Your task to perform on an android device: clear history in the chrome app Image 0: 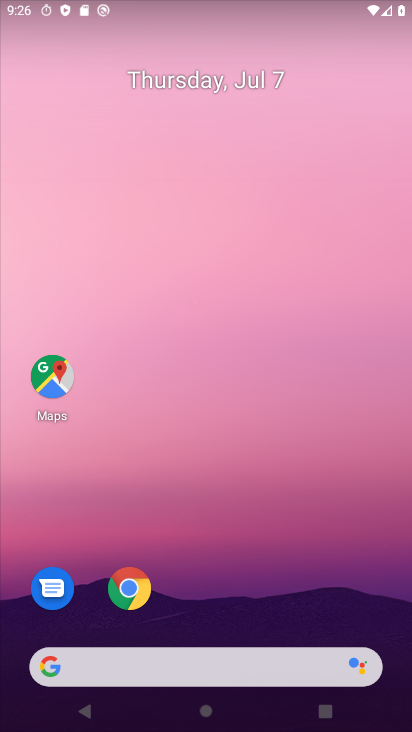
Step 0: drag from (338, 705) to (116, 6)
Your task to perform on an android device: clear history in the chrome app Image 1: 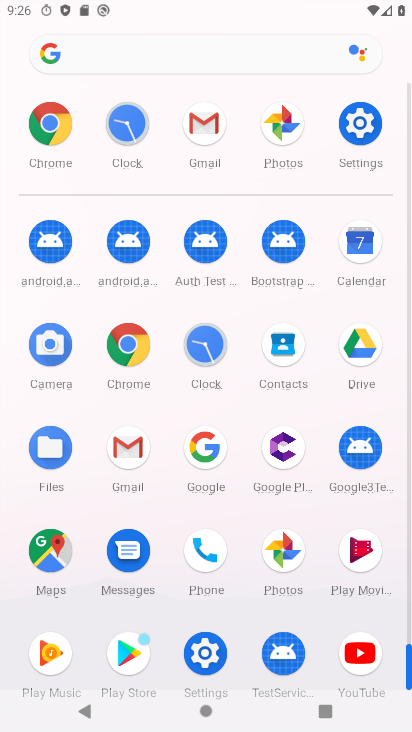
Step 1: click (52, 126)
Your task to perform on an android device: clear history in the chrome app Image 2: 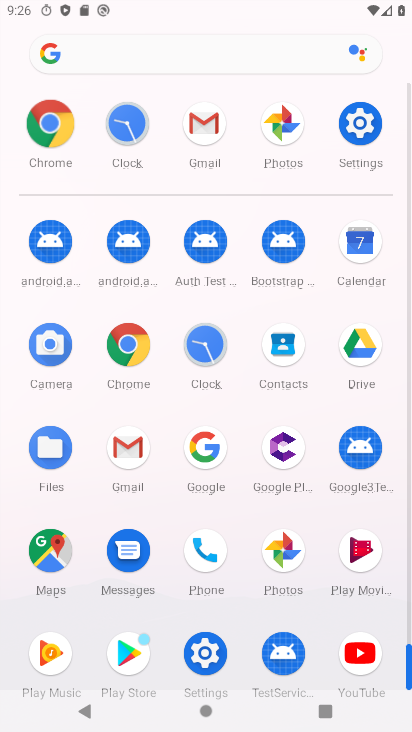
Step 2: click (53, 124)
Your task to perform on an android device: clear history in the chrome app Image 3: 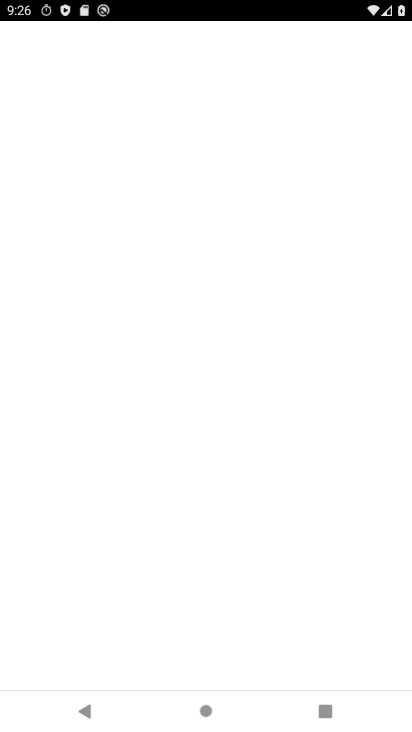
Step 3: click (53, 124)
Your task to perform on an android device: clear history in the chrome app Image 4: 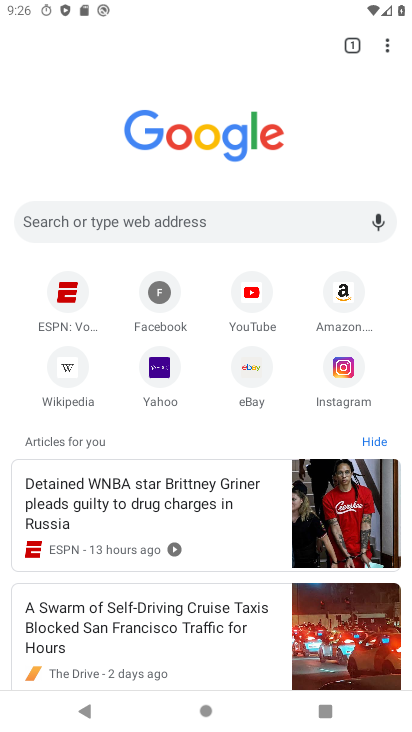
Step 4: drag from (385, 41) to (220, 272)
Your task to perform on an android device: clear history in the chrome app Image 5: 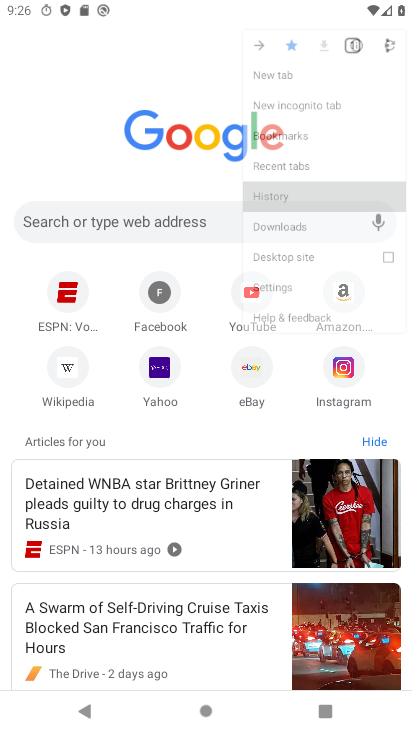
Step 5: click (224, 267)
Your task to perform on an android device: clear history in the chrome app Image 6: 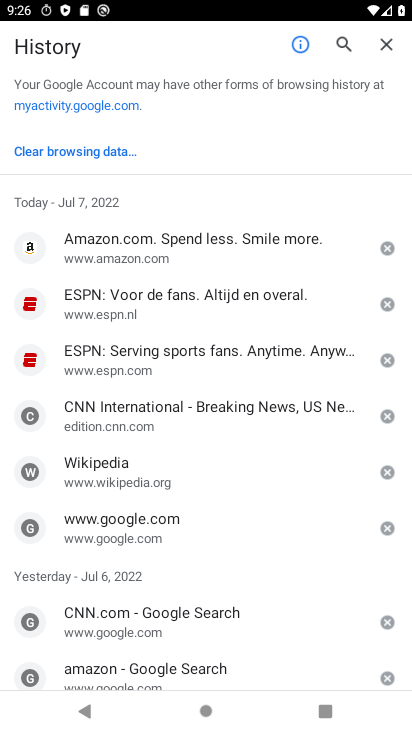
Step 6: click (382, 242)
Your task to perform on an android device: clear history in the chrome app Image 7: 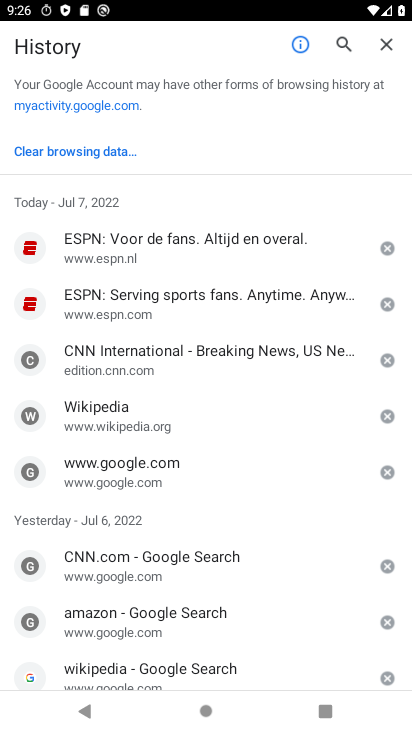
Step 7: click (62, 155)
Your task to perform on an android device: clear history in the chrome app Image 8: 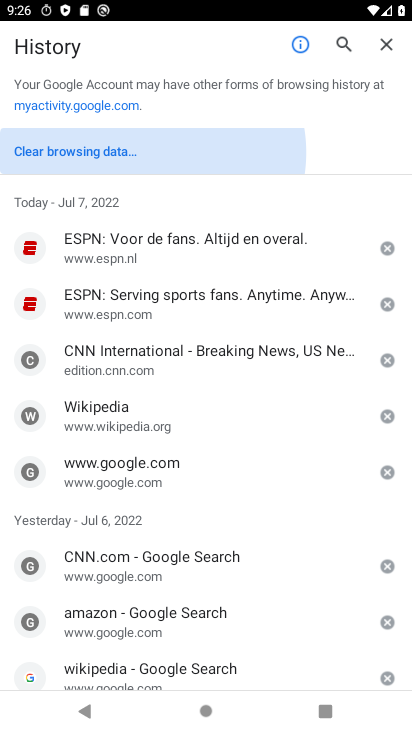
Step 8: click (65, 152)
Your task to perform on an android device: clear history in the chrome app Image 9: 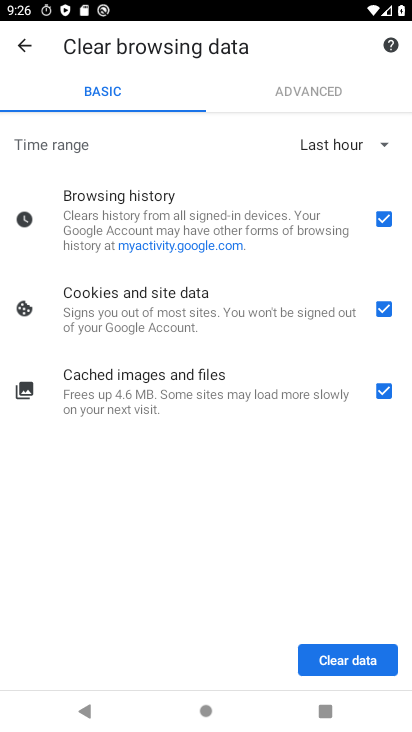
Step 9: click (366, 654)
Your task to perform on an android device: clear history in the chrome app Image 10: 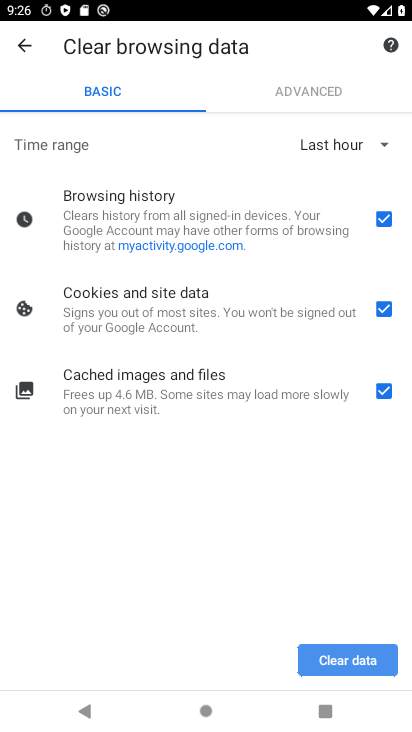
Step 10: click (366, 654)
Your task to perform on an android device: clear history in the chrome app Image 11: 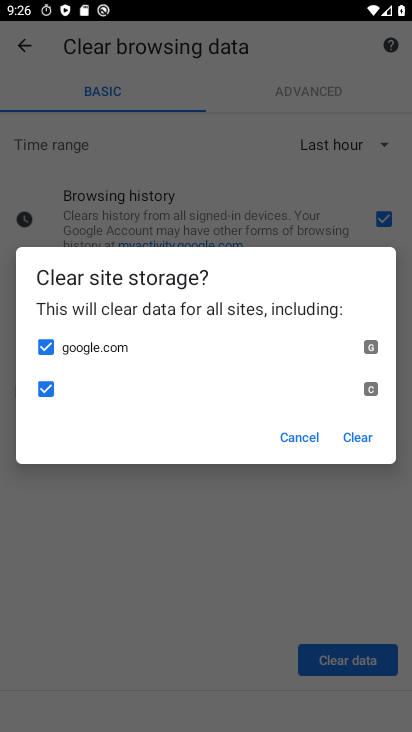
Step 11: click (370, 645)
Your task to perform on an android device: clear history in the chrome app Image 12: 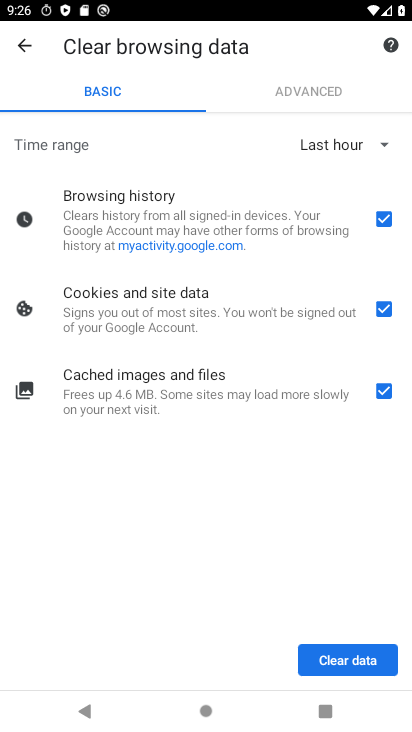
Step 12: click (352, 663)
Your task to perform on an android device: clear history in the chrome app Image 13: 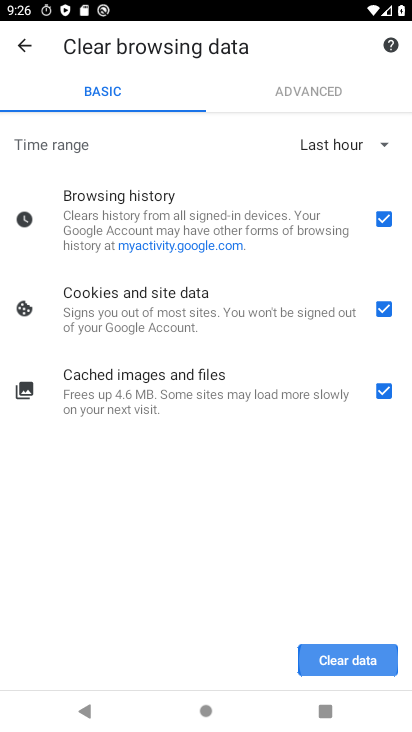
Step 13: click (352, 663)
Your task to perform on an android device: clear history in the chrome app Image 14: 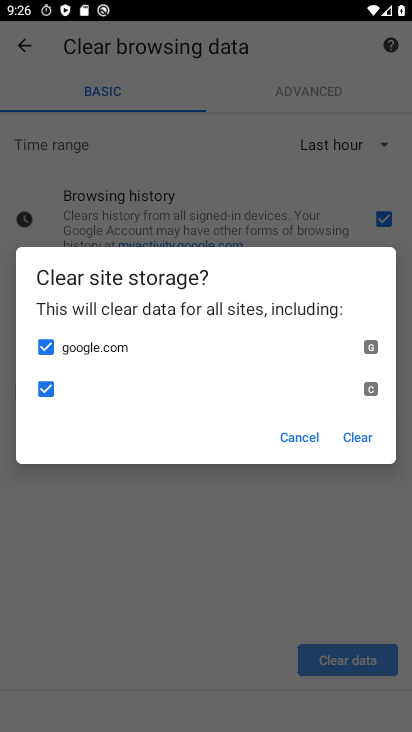
Step 14: click (352, 663)
Your task to perform on an android device: clear history in the chrome app Image 15: 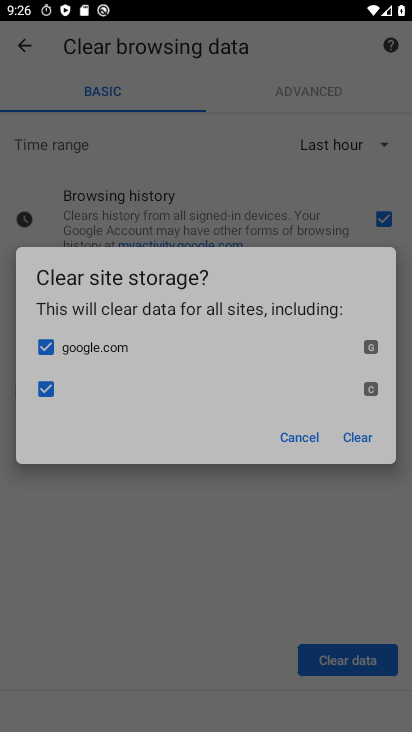
Step 15: click (352, 663)
Your task to perform on an android device: clear history in the chrome app Image 16: 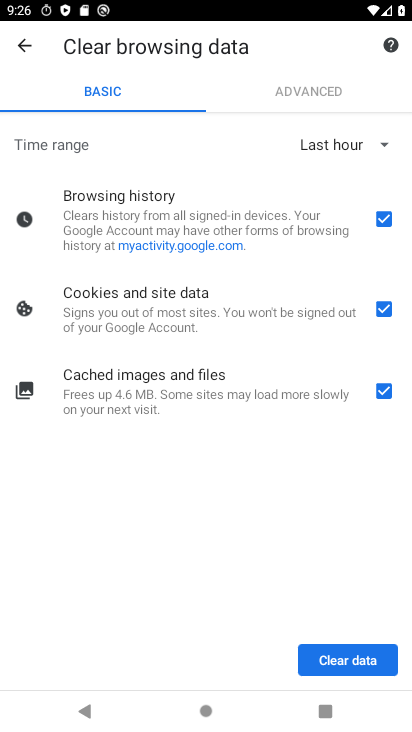
Step 16: click (354, 645)
Your task to perform on an android device: clear history in the chrome app Image 17: 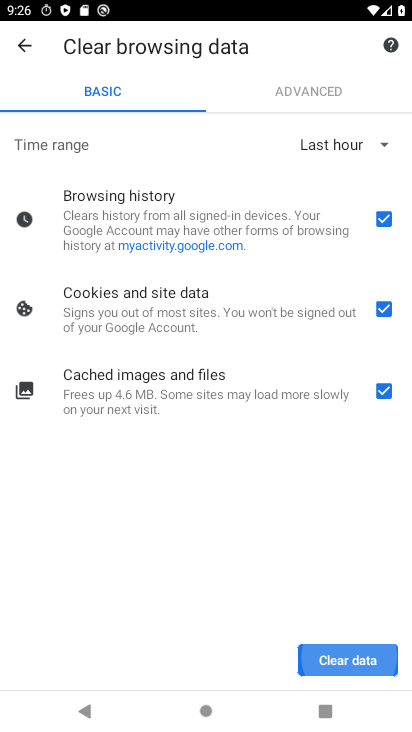
Step 17: click (354, 645)
Your task to perform on an android device: clear history in the chrome app Image 18: 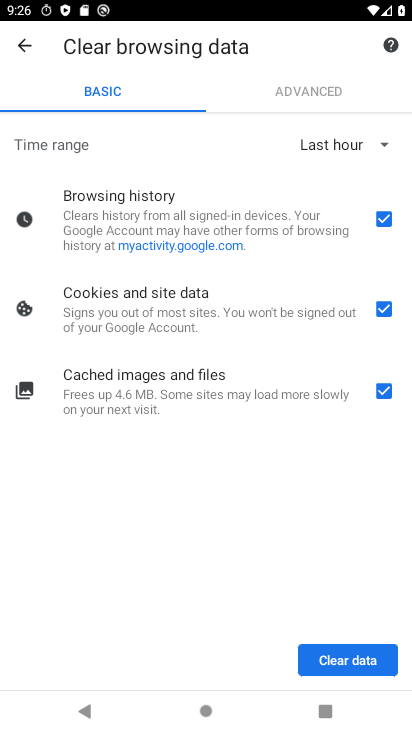
Step 18: click (353, 660)
Your task to perform on an android device: clear history in the chrome app Image 19: 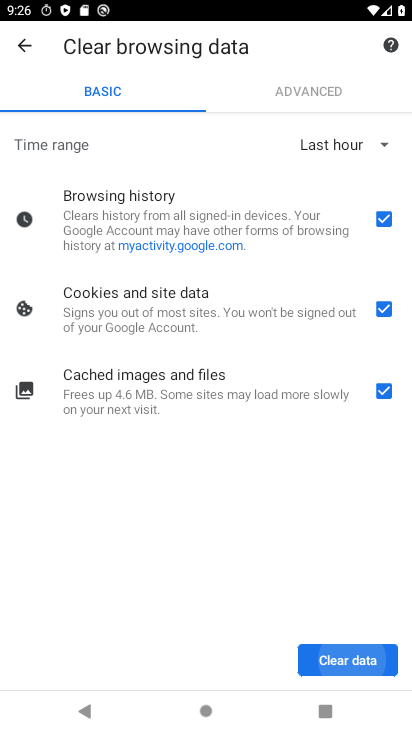
Step 19: click (353, 660)
Your task to perform on an android device: clear history in the chrome app Image 20: 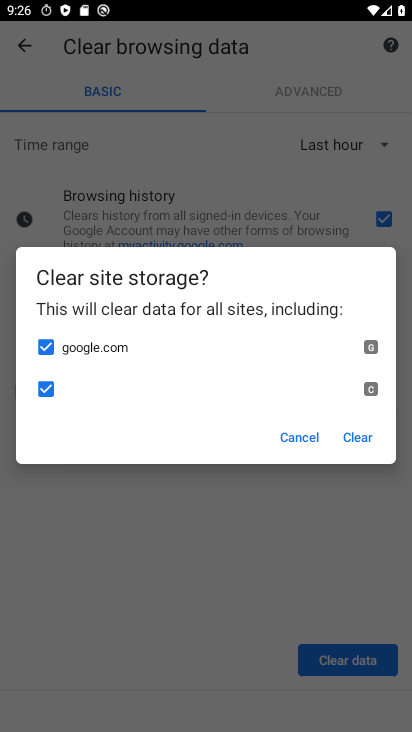
Step 20: click (372, 440)
Your task to perform on an android device: clear history in the chrome app Image 21: 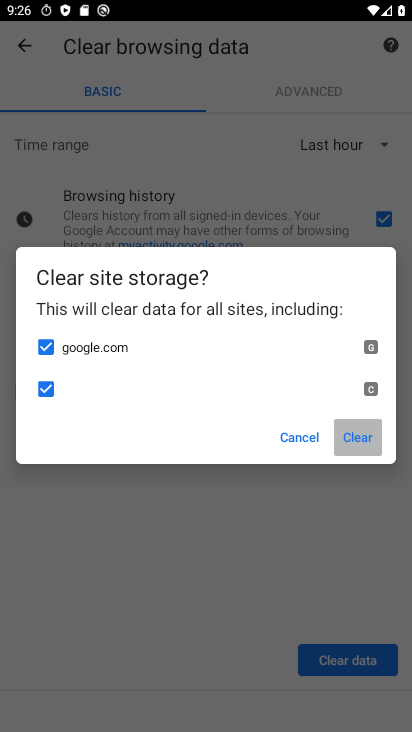
Step 21: click (372, 440)
Your task to perform on an android device: clear history in the chrome app Image 22: 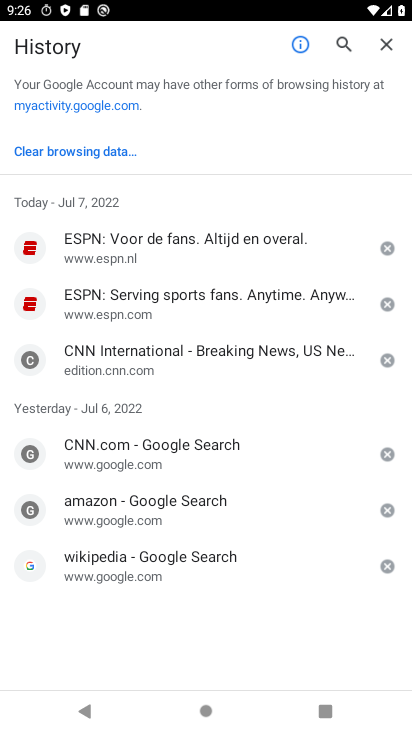
Step 22: task complete